Your task to perform on an android device: Open ESPN.com Image 0: 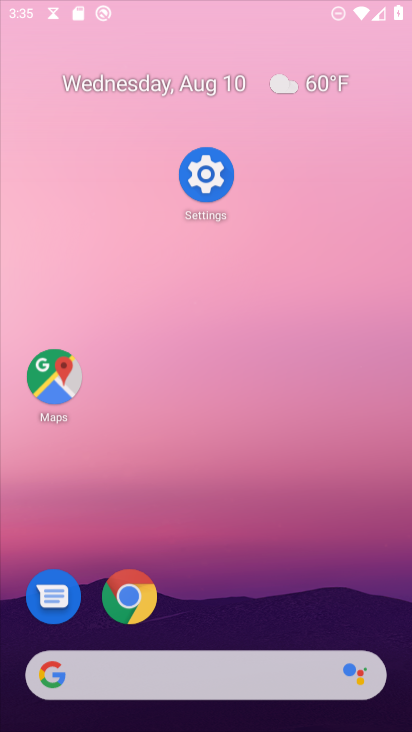
Step 0: press home button
Your task to perform on an android device: Open ESPN.com Image 1: 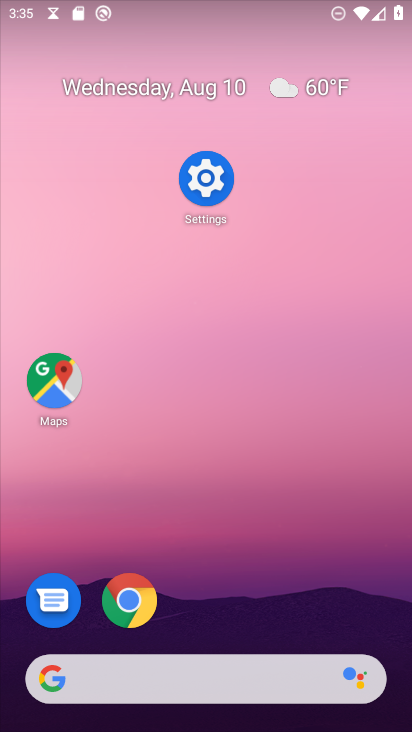
Step 1: click (46, 682)
Your task to perform on an android device: Open ESPN.com Image 2: 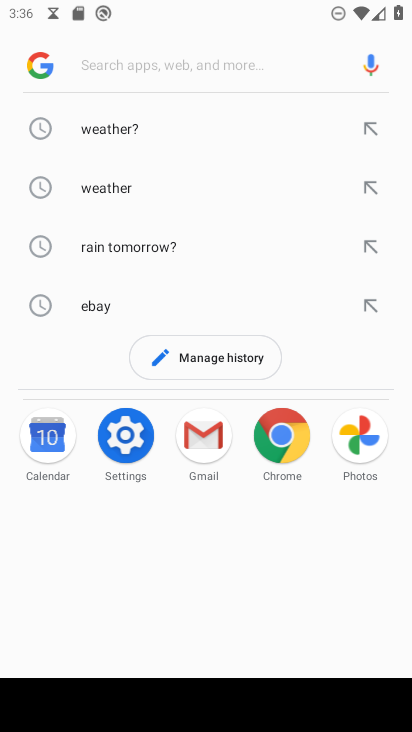
Step 2: type "ESPN.com"
Your task to perform on an android device: Open ESPN.com Image 3: 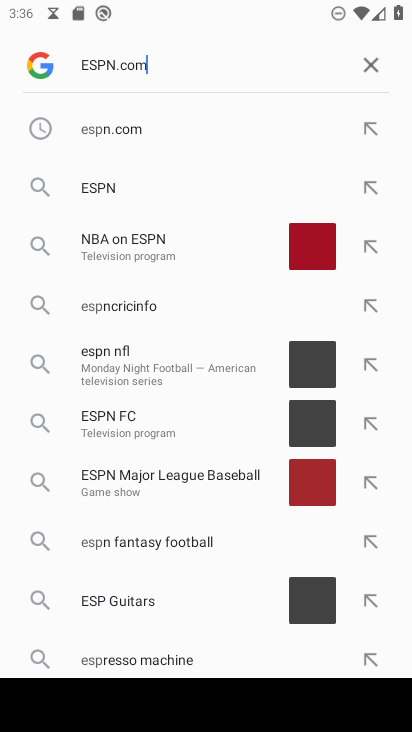
Step 3: press enter
Your task to perform on an android device: Open ESPN.com Image 4: 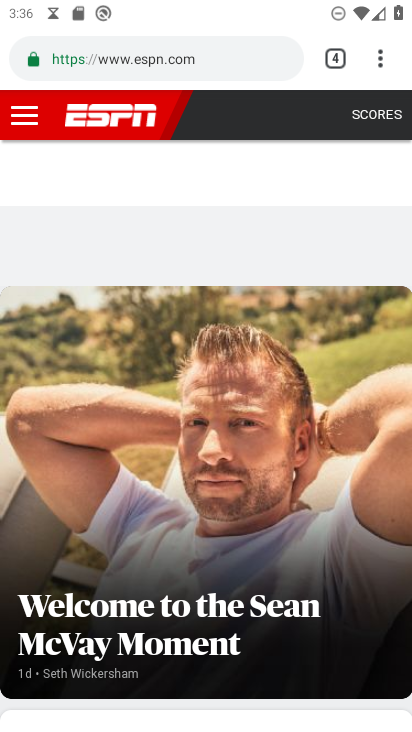
Step 4: task complete